Your task to perform on an android device: Open the web browser Image 0: 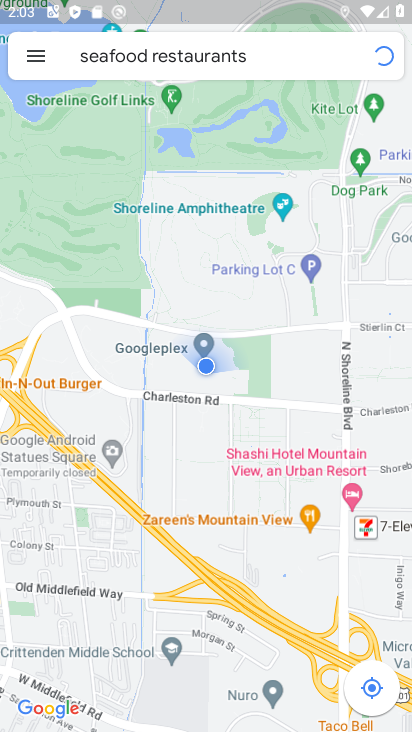
Step 0: press home button
Your task to perform on an android device: Open the web browser Image 1: 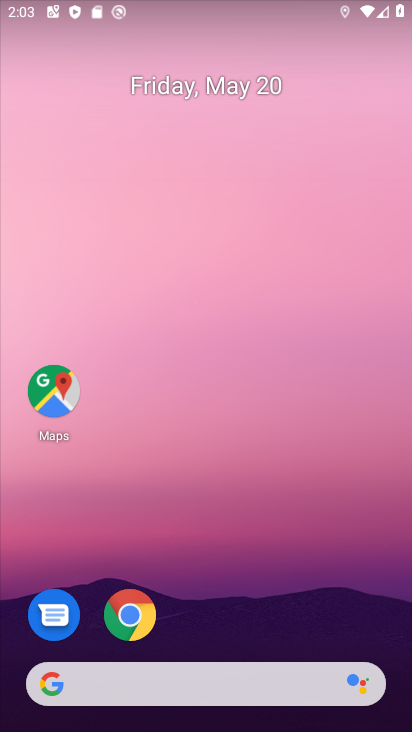
Step 1: click (122, 616)
Your task to perform on an android device: Open the web browser Image 2: 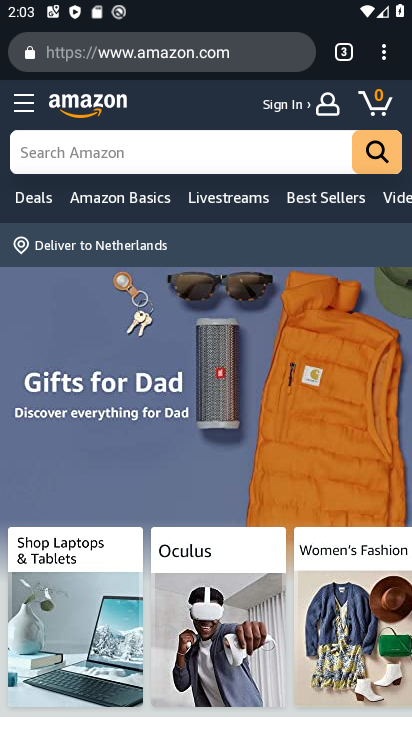
Step 2: task complete